Your task to perform on an android device: check the backup settings in the google photos Image 0: 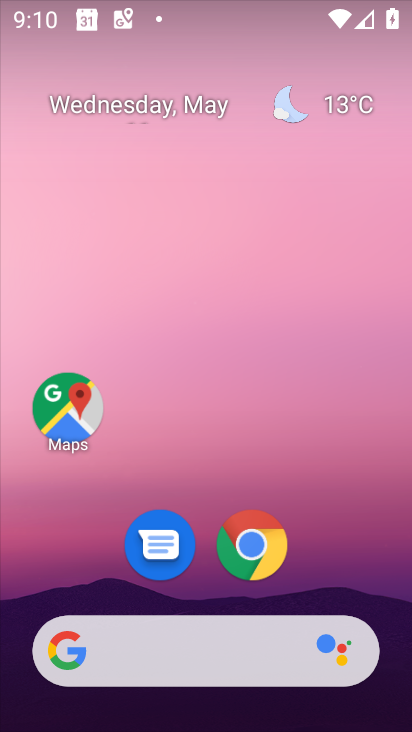
Step 0: drag from (326, 531) to (237, 25)
Your task to perform on an android device: check the backup settings in the google photos Image 1: 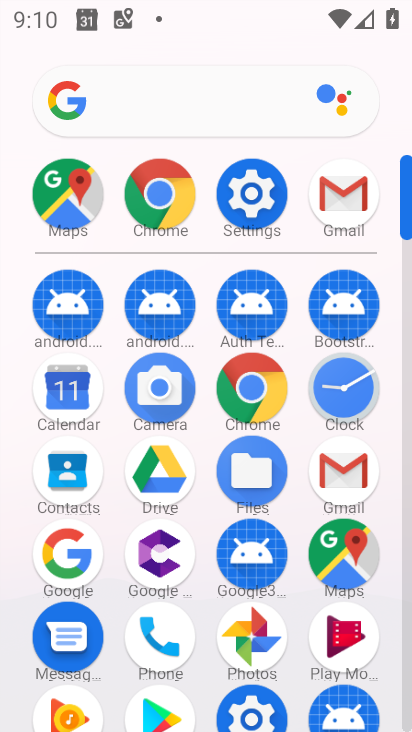
Step 1: drag from (0, 541) to (8, 256)
Your task to perform on an android device: check the backup settings in the google photos Image 2: 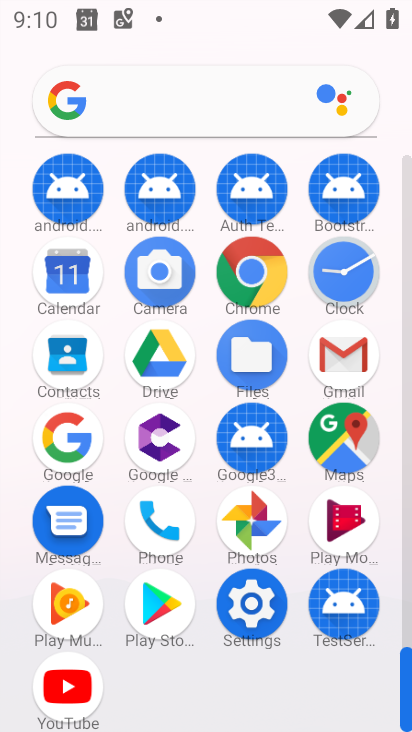
Step 2: click (250, 514)
Your task to perform on an android device: check the backup settings in the google photos Image 3: 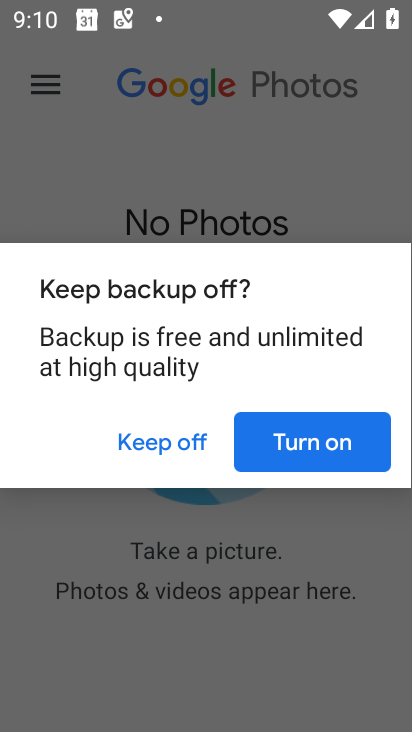
Step 3: press back button
Your task to perform on an android device: check the backup settings in the google photos Image 4: 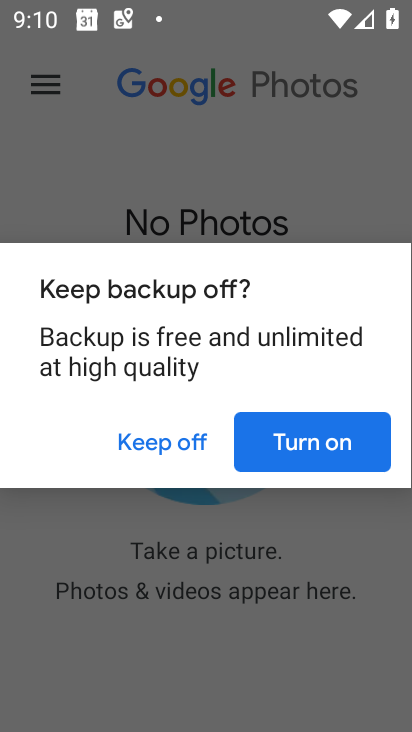
Step 4: click (320, 448)
Your task to perform on an android device: check the backup settings in the google photos Image 5: 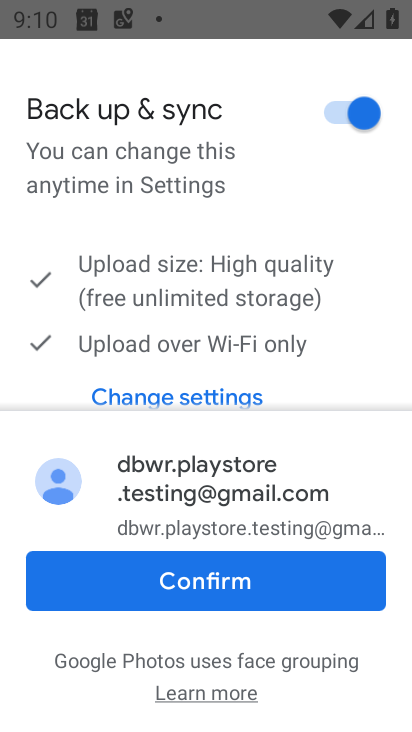
Step 5: click (247, 578)
Your task to perform on an android device: check the backup settings in the google photos Image 6: 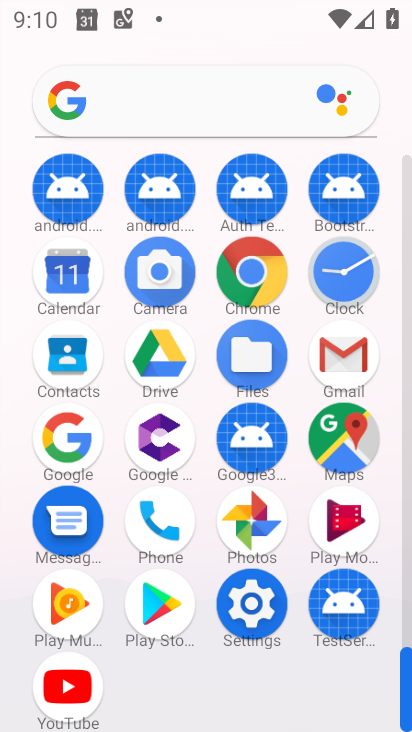
Step 6: click (255, 515)
Your task to perform on an android device: check the backup settings in the google photos Image 7: 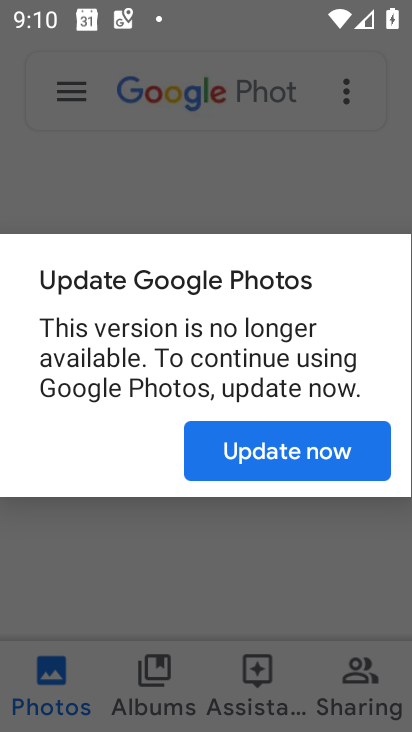
Step 7: click (291, 451)
Your task to perform on an android device: check the backup settings in the google photos Image 8: 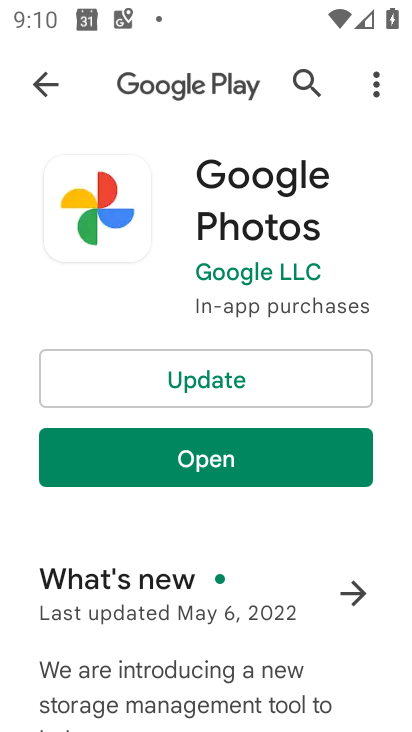
Step 8: click (242, 378)
Your task to perform on an android device: check the backup settings in the google photos Image 9: 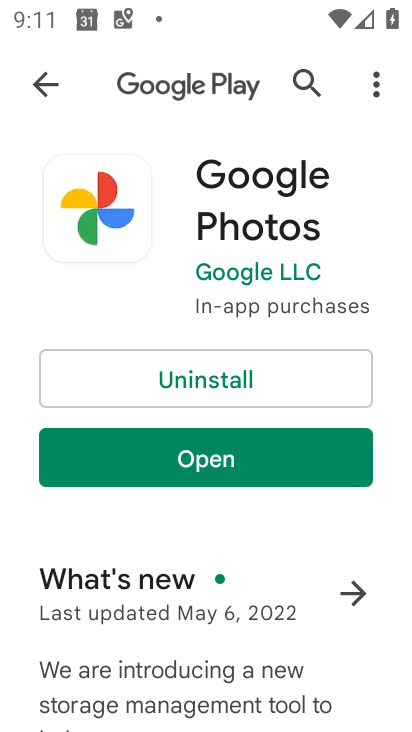
Step 9: click (185, 456)
Your task to perform on an android device: check the backup settings in the google photos Image 10: 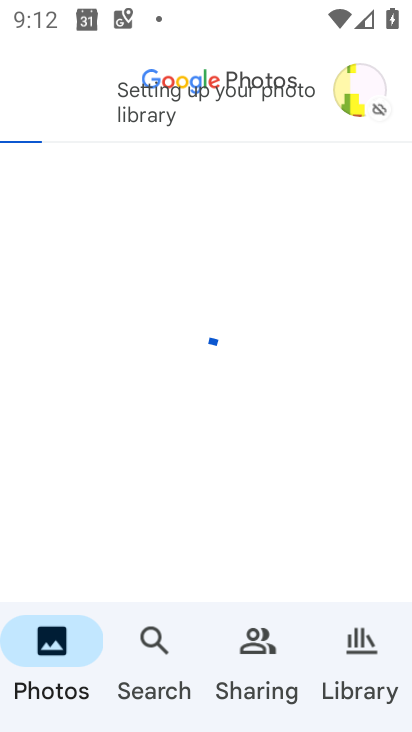
Step 10: click (366, 644)
Your task to perform on an android device: check the backup settings in the google photos Image 11: 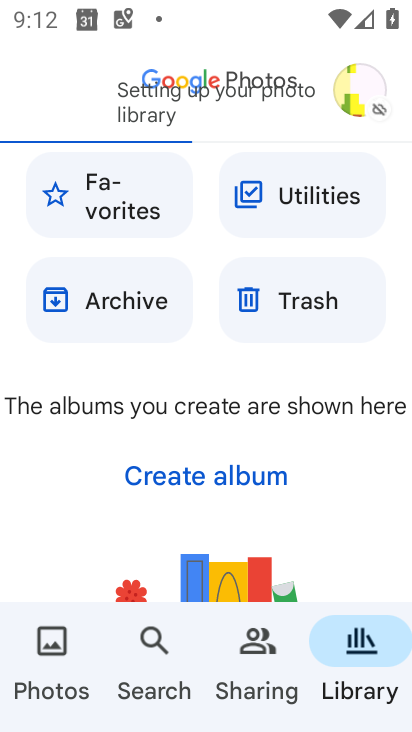
Step 11: click (356, 81)
Your task to perform on an android device: check the backup settings in the google photos Image 12: 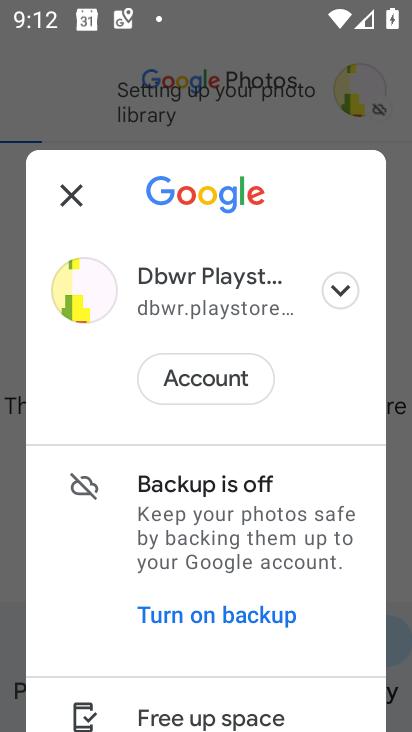
Step 12: drag from (269, 508) to (262, 339)
Your task to perform on an android device: check the backup settings in the google photos Image 13: 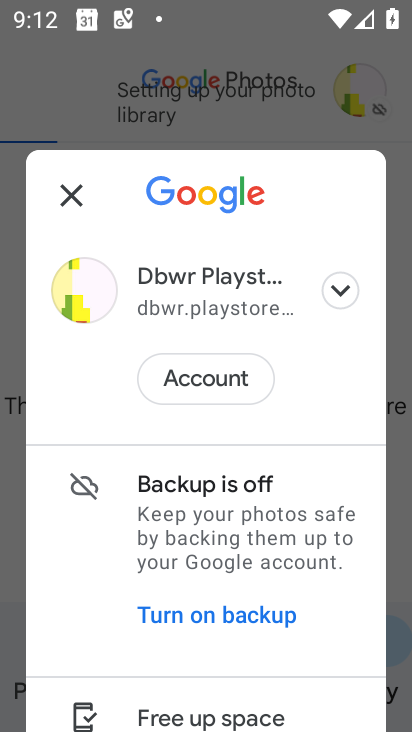
Step 13: drag from (279, 661) to (309, 270)
Your task to perform on an android device: check the backup settings in the google photos Image 14: 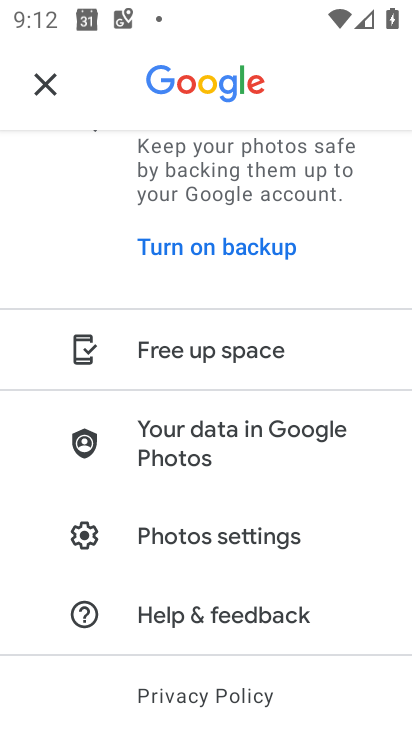
Step 14: click (227, 534)
Your task to perform on an android device: check the backup settings in the google photos Image 15: 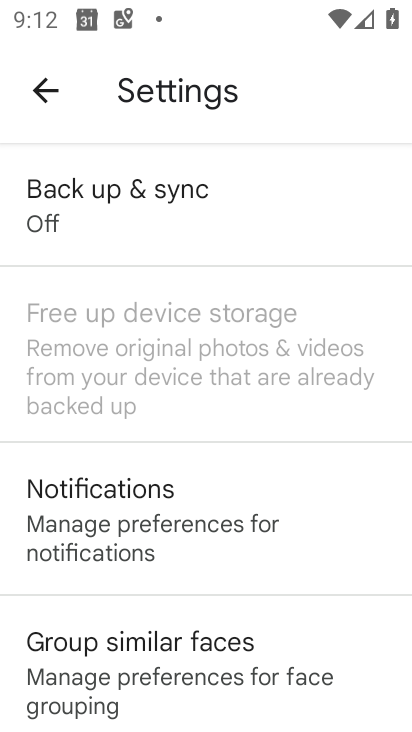
Step 15: drag from (285, 649) to (311, 238)
Your task to perform on an android device: check the backup settings in the google photos Image 16: 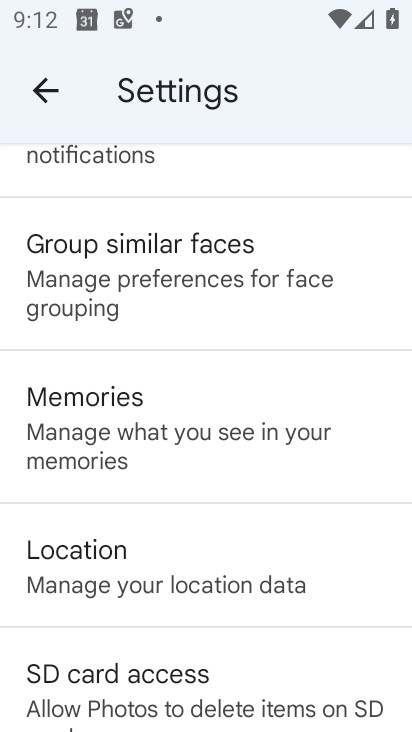
Step 16: drag from (254, 647) to (254, 312)
Your task to perform on an android device: check the backup settings in the google photos Image 17: 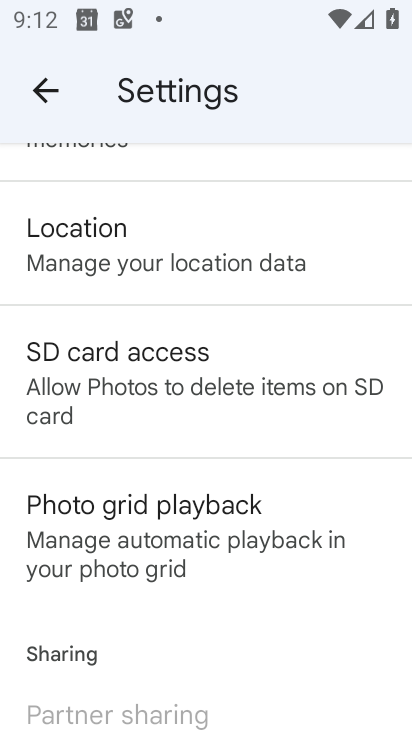
Step 17: drag from (260, 610) to (260, 253)
Your task to perform on an android device: check the backup settings in the google photos Image 18: 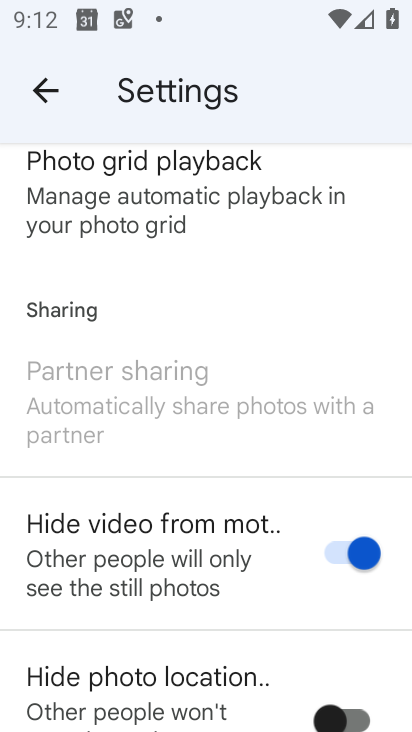
Step 18: drag from (196, 608) to (198, 235)
Your task to perform on an android device: check the backup settings in the google photos Image 19: 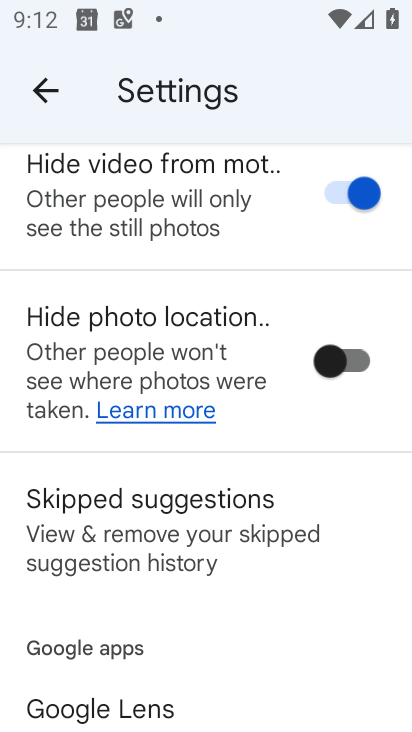
Step 19: drag from (204, 599) to (211, 200)
Your task to perform on an android device: check the backup settings in the google photos Image 20: 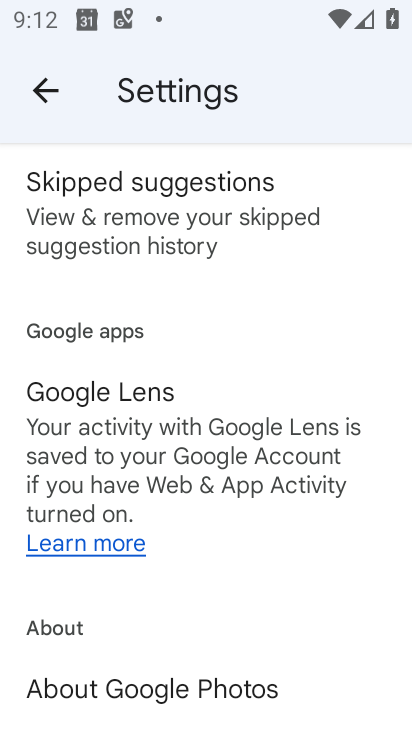
Step 20: drag from (205, 523) to (210, 238)
Your task to perform on an android device: check the backup settings in the google photos Image 21: 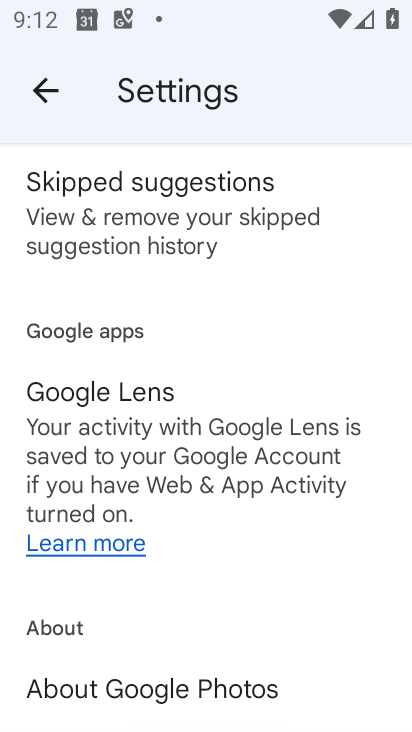
Step 21: drag from (236, 207) to (237, 668)
Your task to perform on an android device: check the backup settings in the google photos Image 22: 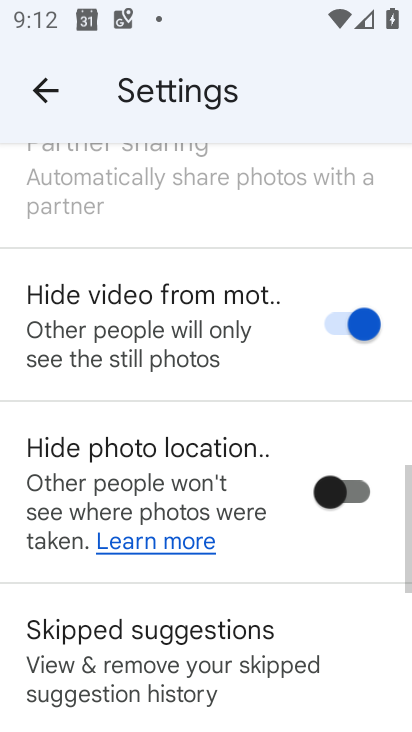
Step 22: drag from (188, 229) to (206, 659)
Your task to perform on an android device: check the backup settings in the google photos Image 23: 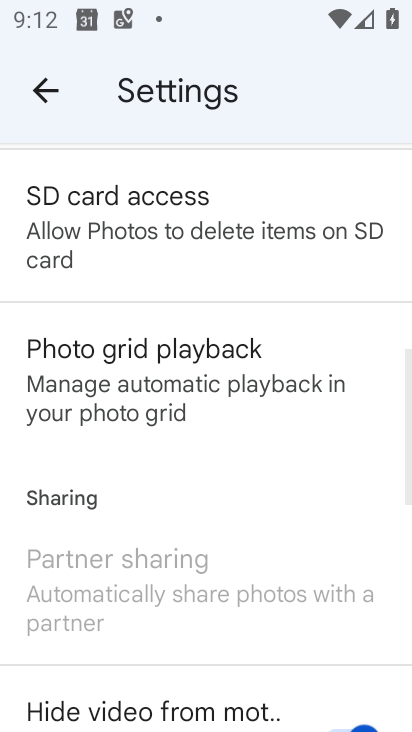
Step 23: drag from (226, 233) to (228, 689)
Your task to perform on an android device: check the backup settings in the google photos Image 24: 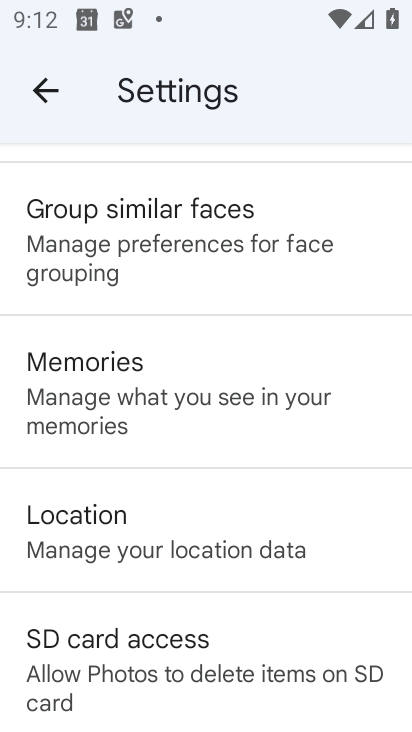
Step 24: drag from (232, 241) to (224, 660)
Your task to perform on an android device: check the backup settings in the google photos Image 25: 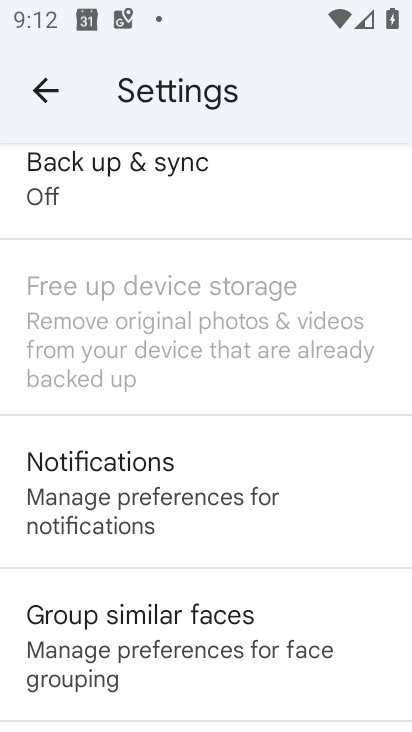
Step 25: drag from (234, 286) to (212, 627)
Your task to perform on an android device: check the backup settings in the google photos Image 26: 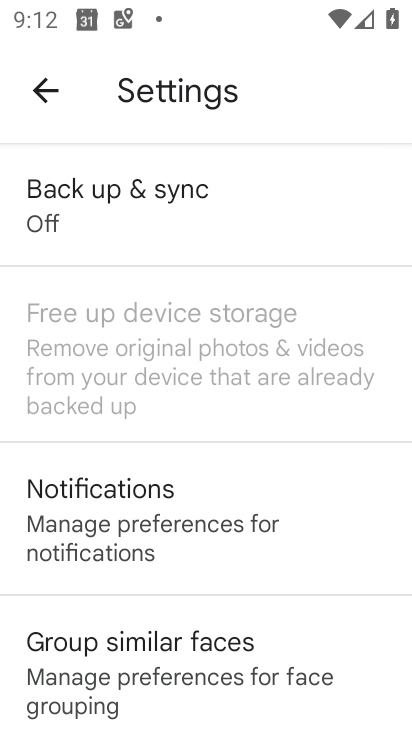
Step 26: click (205, 238)
Your task to perform on an android device: check the backup settings in the google photos Image 27: 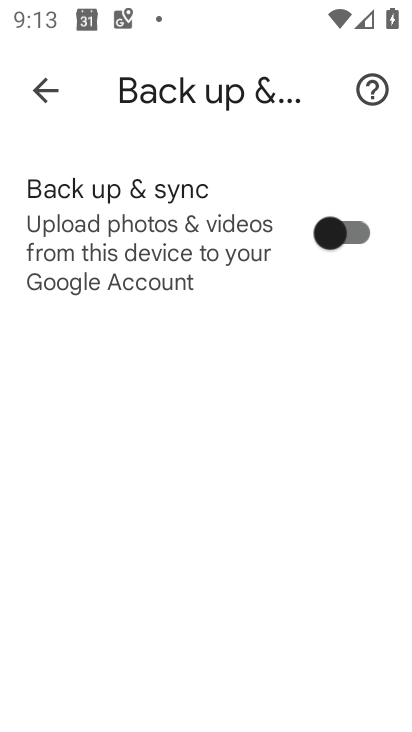
Step 27: click (39, 96)
Your task to perform on an android device: check the backup settings in the google photos Image 28: 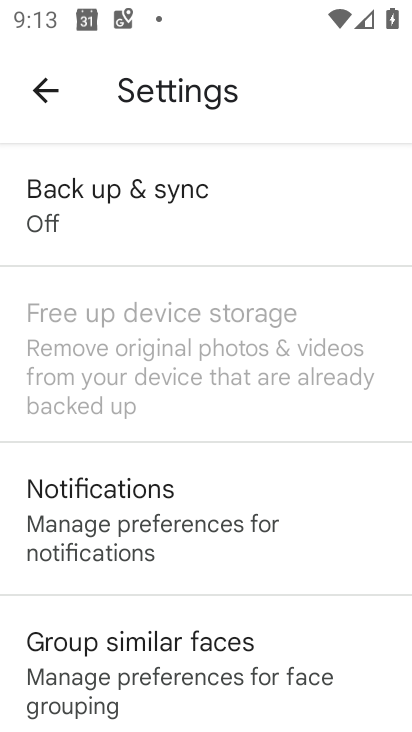
Step 28: drag from (238, 573) to (246, 160)
Your task to perform on an android device: check the backup settings in the google photos Image 29: 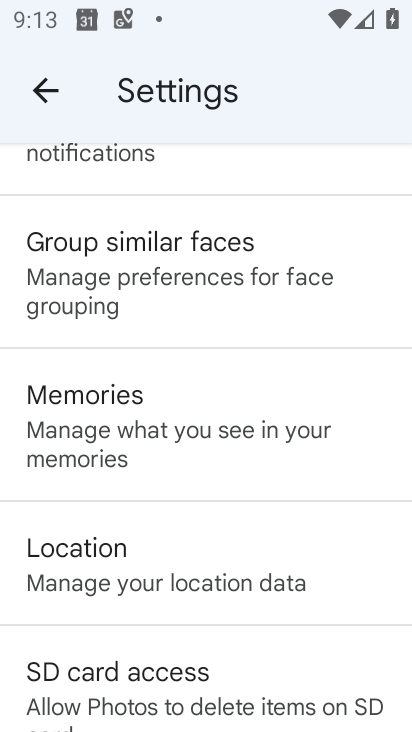
Step 29: drag from (267, 217) to (273, 602)
Your task to perform on an android device: check the backup settings in the google photos Image 30: 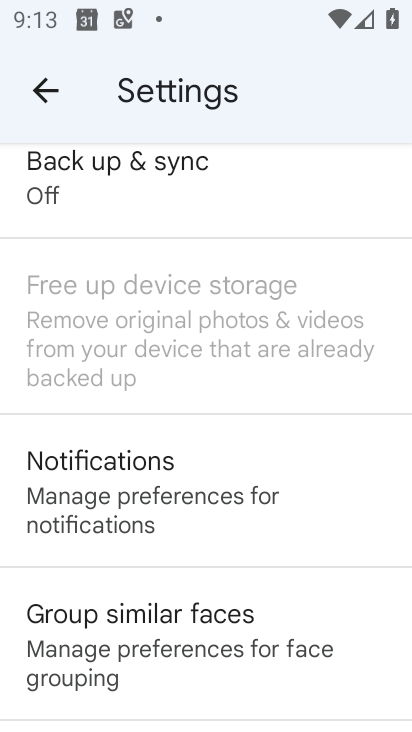
Step 30: click (214, 189)
Your task to perform on an android device: check the backup settings in the google photos Image 31: 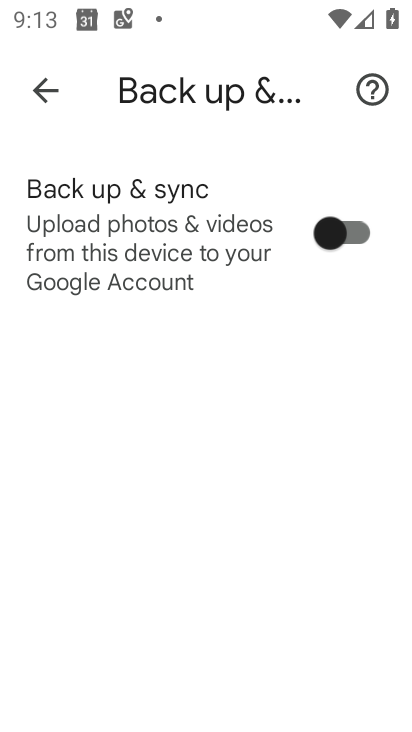
Step 31: task complete